Your task to perform on an android device: turn on bluetooth scan Image 0: 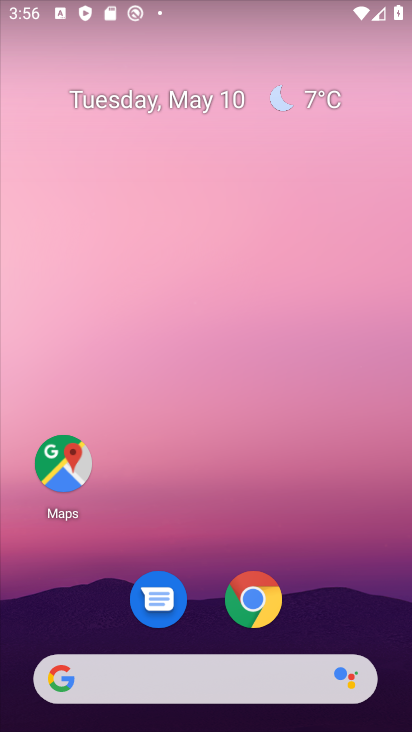
Step 0: drag from (248, 692) to (247, 123)
Your task to perform on an android device: turn on bluetooth scan Image 1: 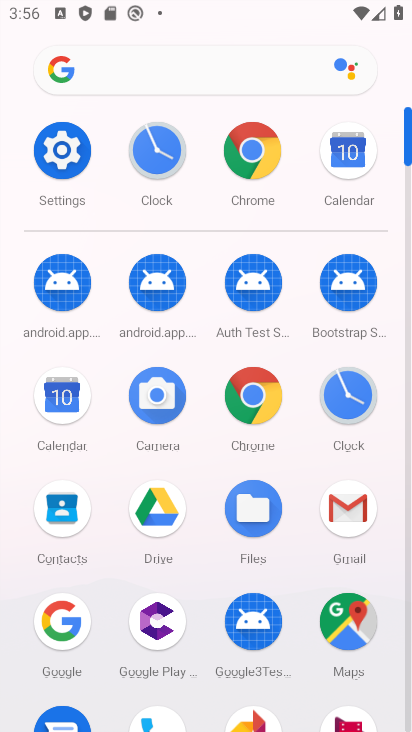
Step 1: click (79, 159)
Your task to perform on an android device: turn on bluetooth scan Image 2: 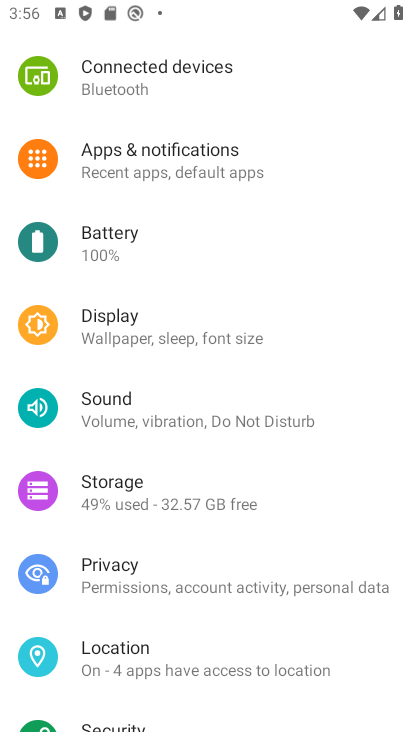
Step 2: drag from (147, 250) to (174, 647)
Your task to perform on an android device: turn on bluetooth scan Image 3: 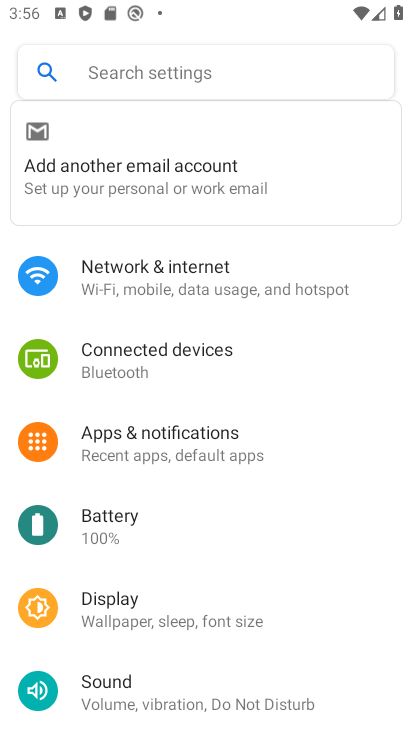
Step 3: click (222, 362)
Your task to perform on an android device: turn on bluetooth scan Image 4: 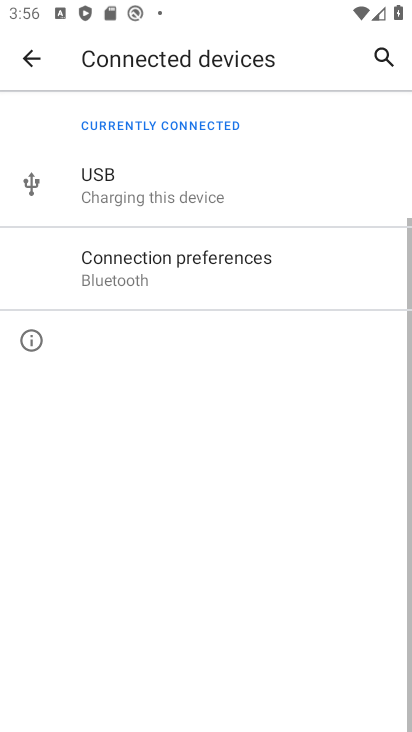
Step 4: click (218, 190)
Your task to perform on an android device: turn on bluetooth scan Image 5: 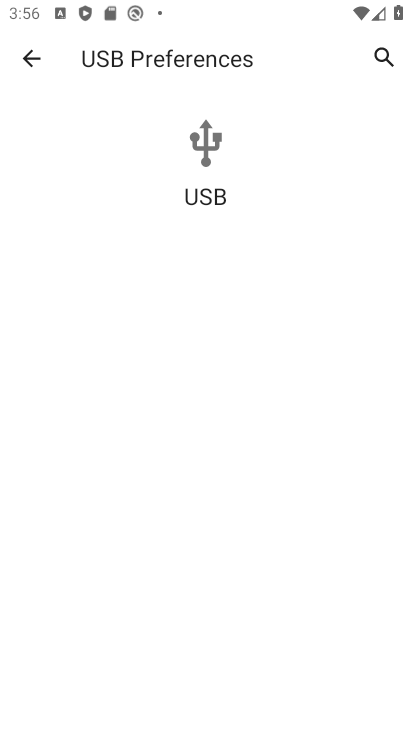
Step 5: click (28, 55)
Your task to perform on an android device: turn on bluetooth scan Image 6: 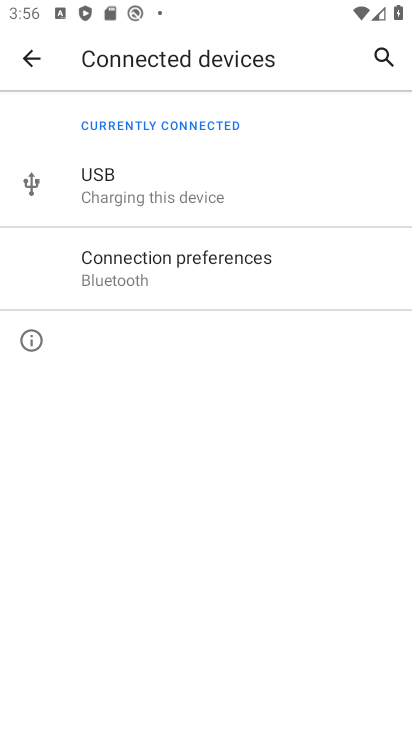
Step 6: click (264, 267)
Your task to perform on an android device: turn on bluetooth scan Image 7: 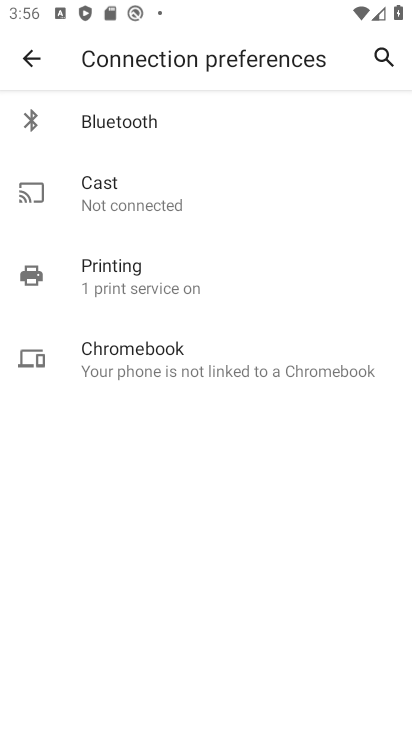
Step 7: task complete